Your task to perform on an android device: choose inbox layout in the gmail app Image 0: 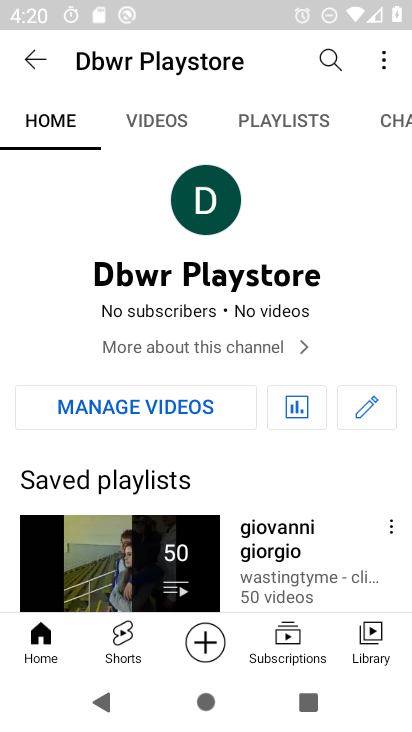
Step 0: press home button
Your task to perform on an android device: choose inbox layout in the gmail app Image 1: 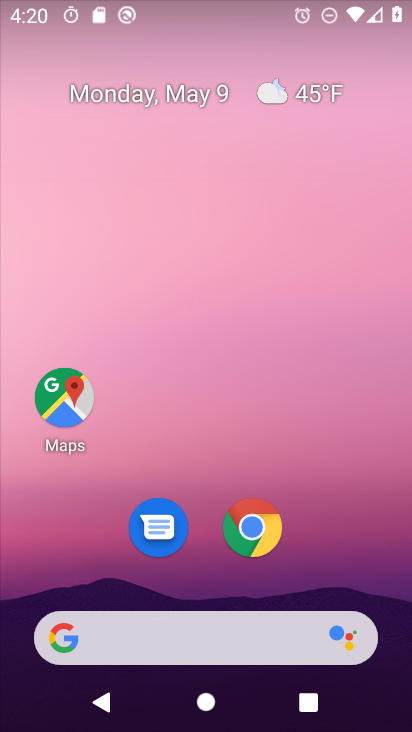
Step 1: drag from (353, 550) to (261, 212)
Your task to perform on an android device: choose inbox layout in the gmail app Image 2: 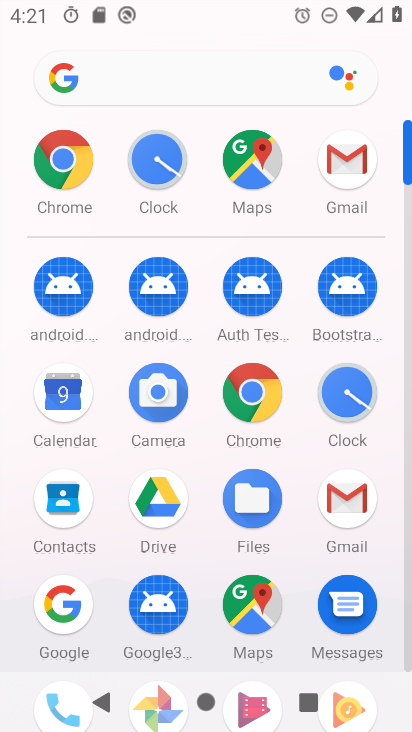
Step 2: click (350, 171)
Your task to perform on an android device: choose inbox layout in the gmail app Image 3: 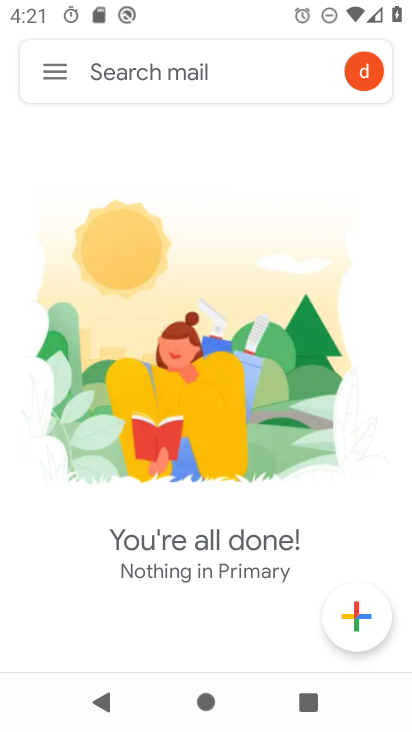
Step 3: click (56, 75)
Your task to perform on an android device: choose inbox layout in the gmail app Image 4: 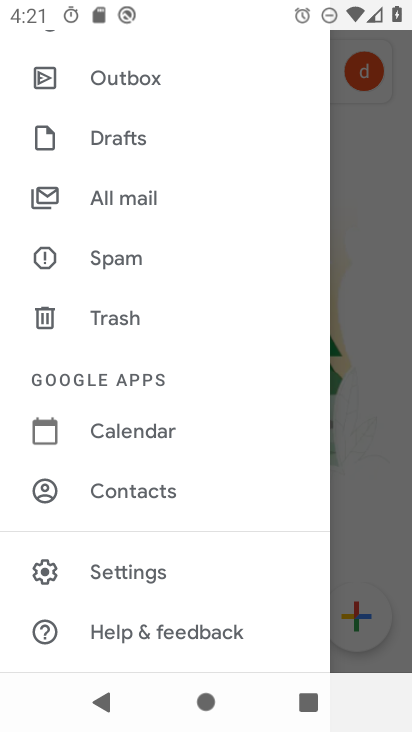
Step 4: click (213, 579)
Your task to perform on an android device: choose inbox layout in the gmail app Image 5: 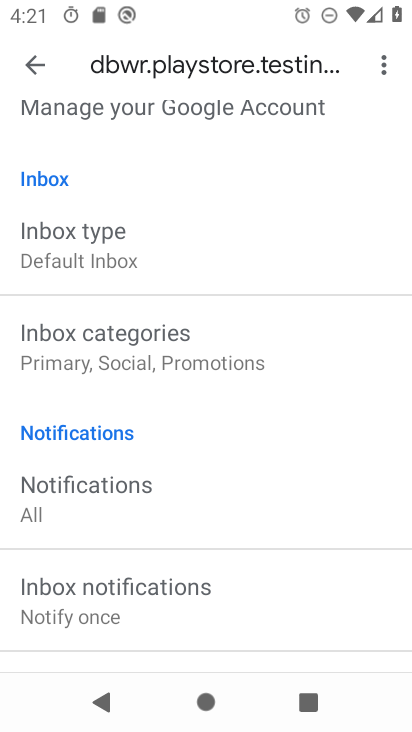
Step 5: click (157, 250)
Your task to perform on an android device: choose inbox layout in the gmail app Image 6: 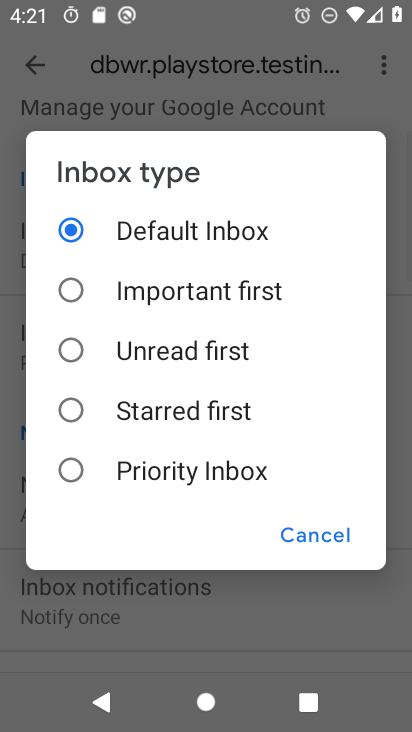
Step 6: click (176, 293)
Your task to perform on an android device: choose inbox layout in the gmail app Image 7: 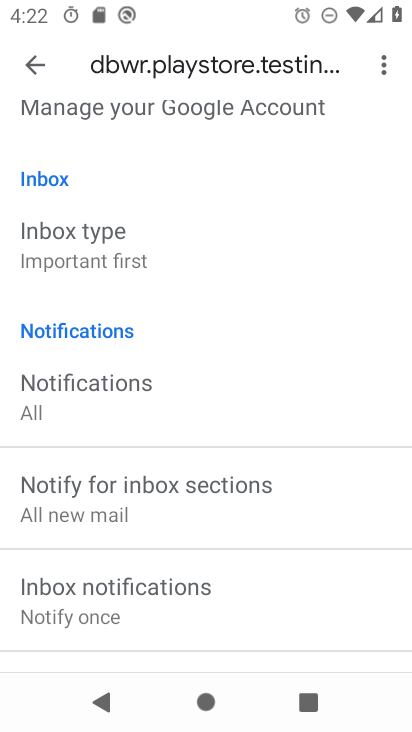
Step 7: task complete